Your task to perform on an android device: turn on translation in the chrome app Image 0: 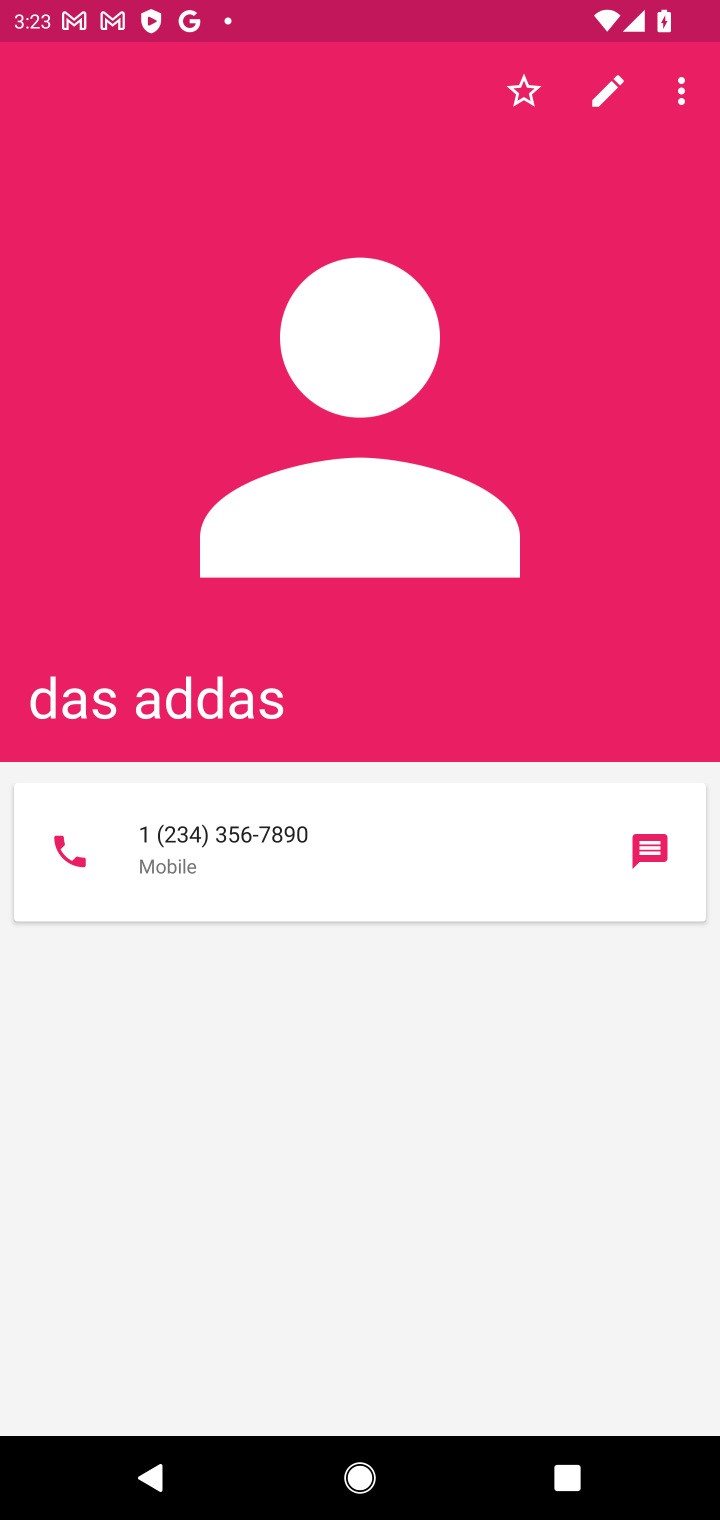
Step 0: press home button
Your task to perform on an android device: turn on translation in the chrome app Image 1: 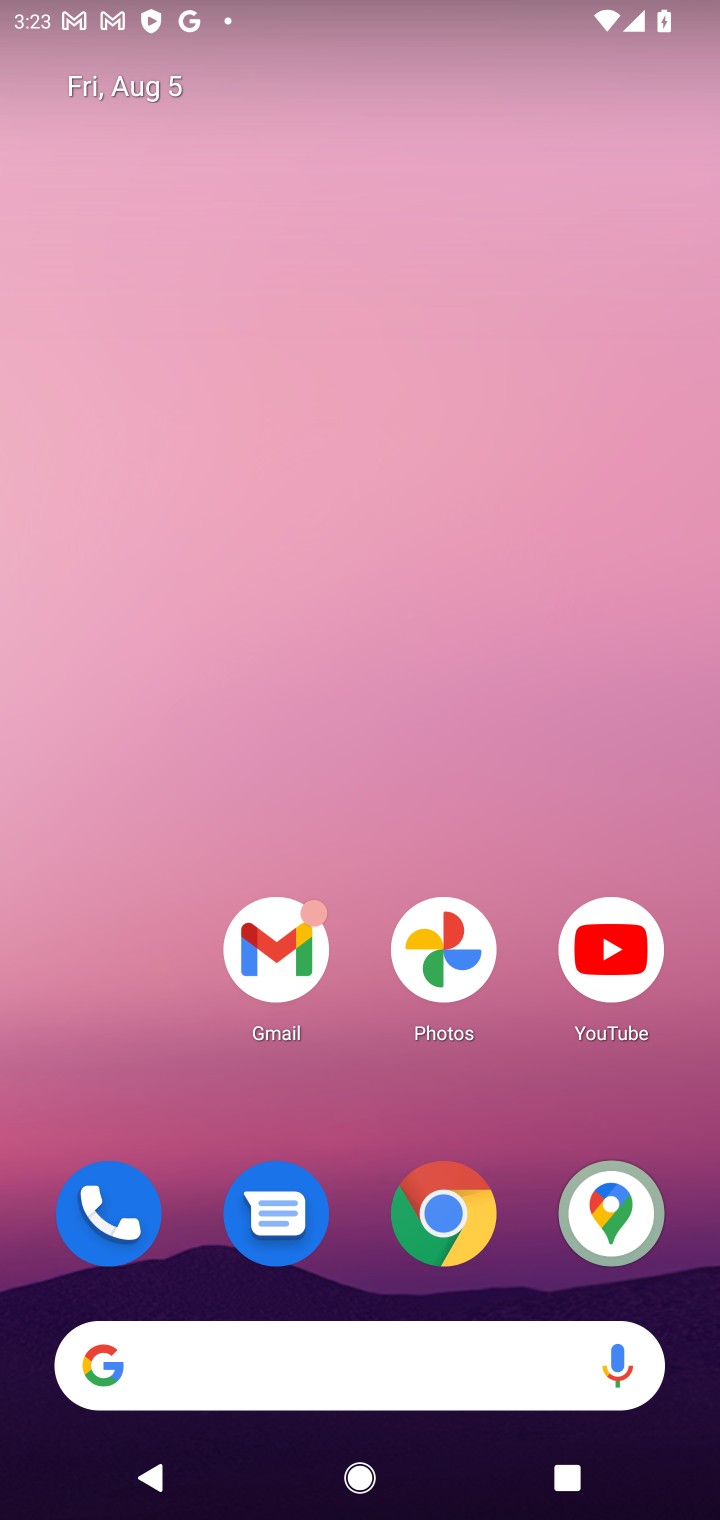
Step 1: click (465, 1225)
Your task to perform on an android device: turn on translation in the chrome app Image 2: 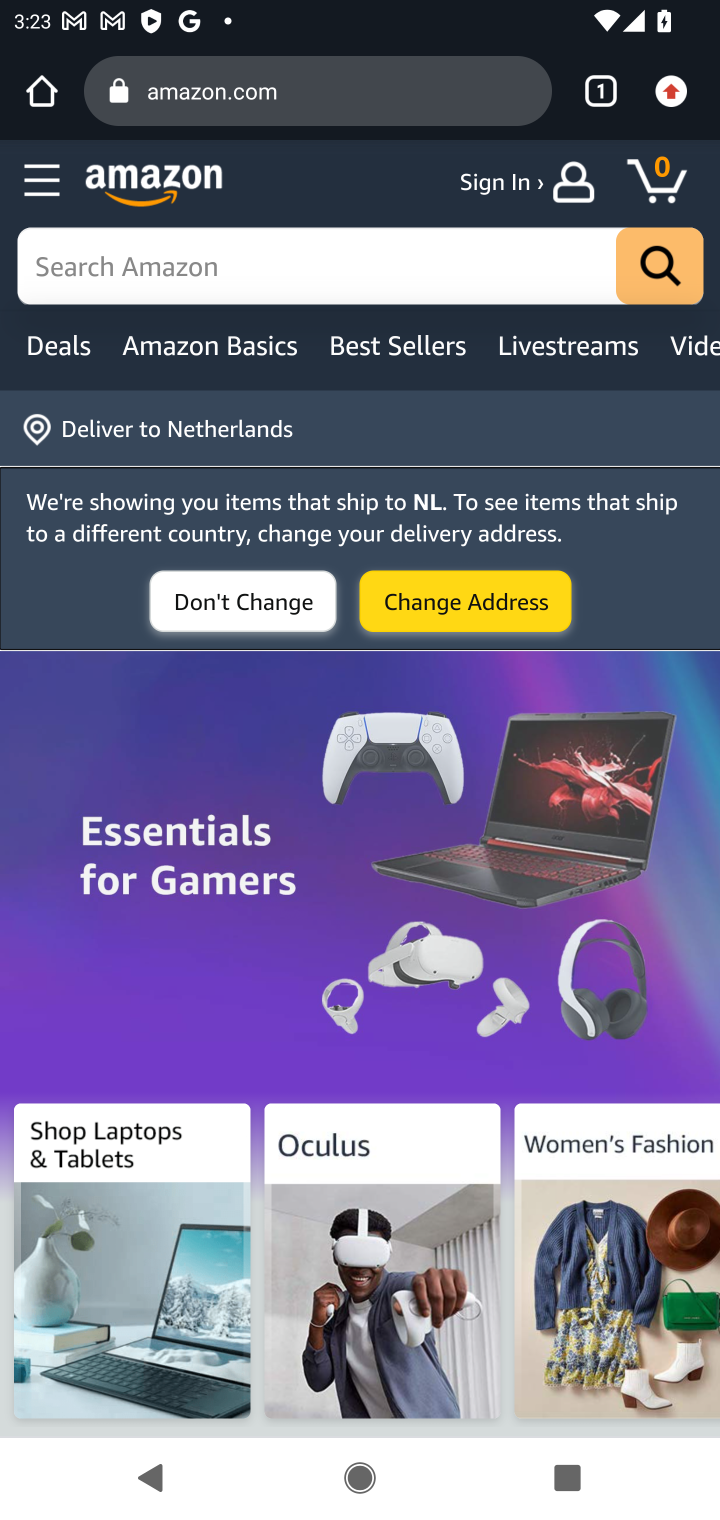
Step 2: click (671, 116)
Your task to perform on an android device: turn on translation in the chrome app Image 3: 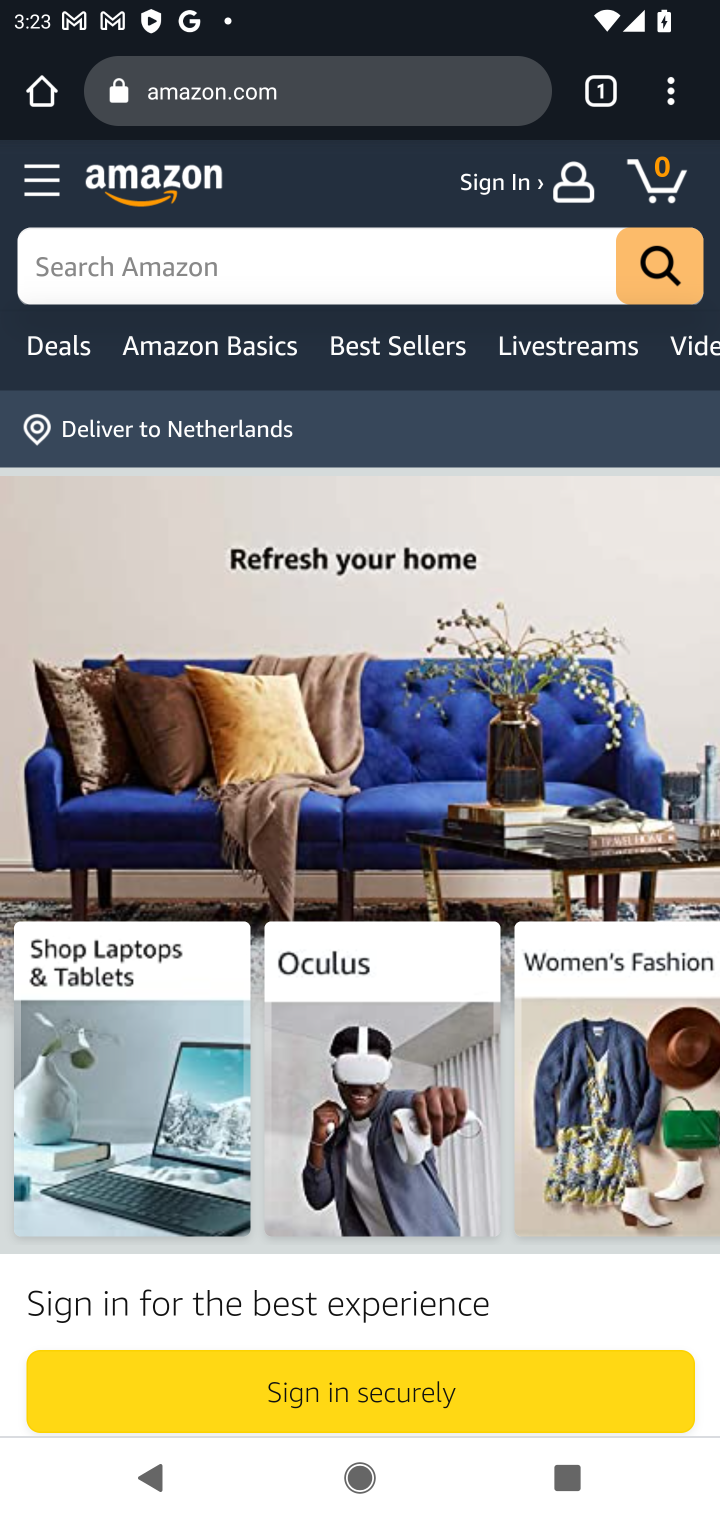
Step 3: click (674, 88)
Your task to perform on an android device: turn on translation in the chrome app Image 4: 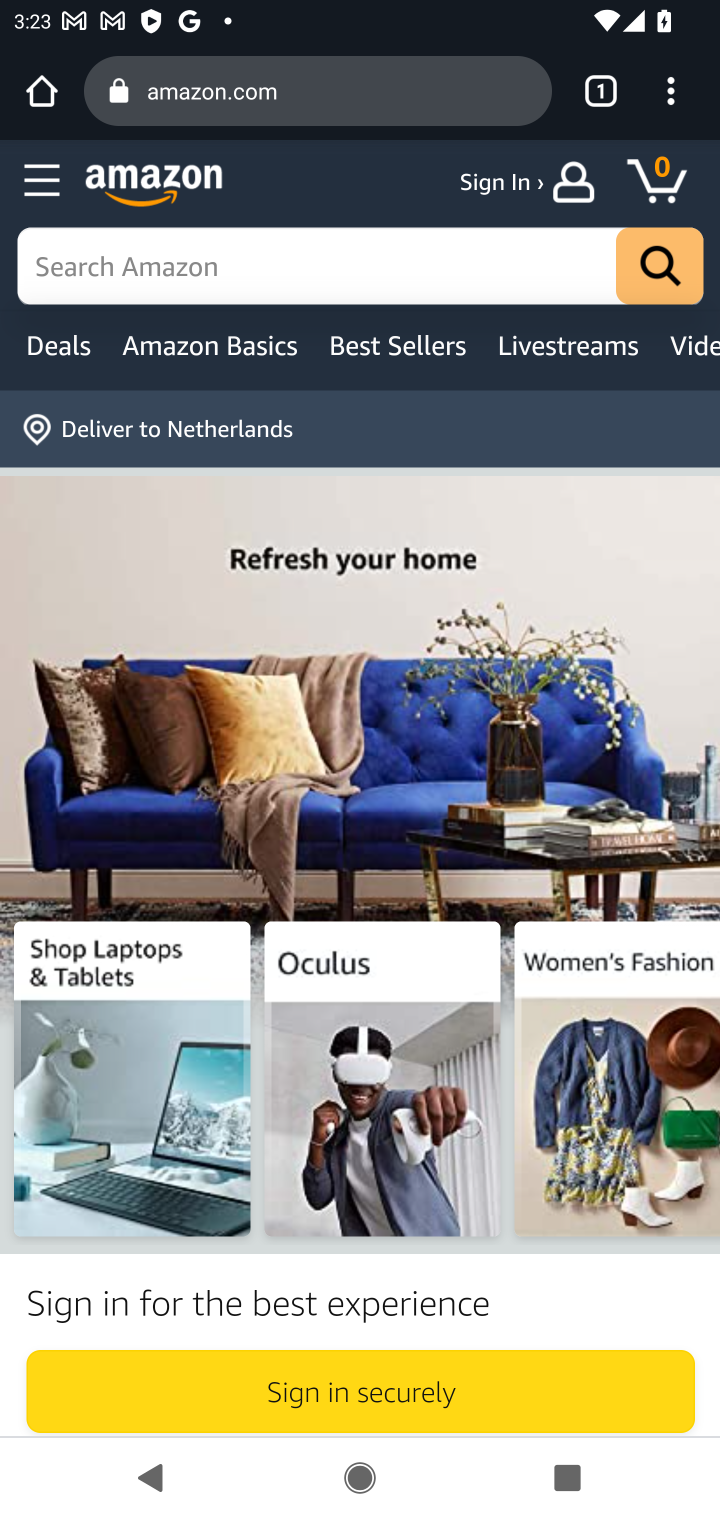
Step 4: click (648, 90)
Your task to perform on an android device: turn on translation in the chrome app Image 5: 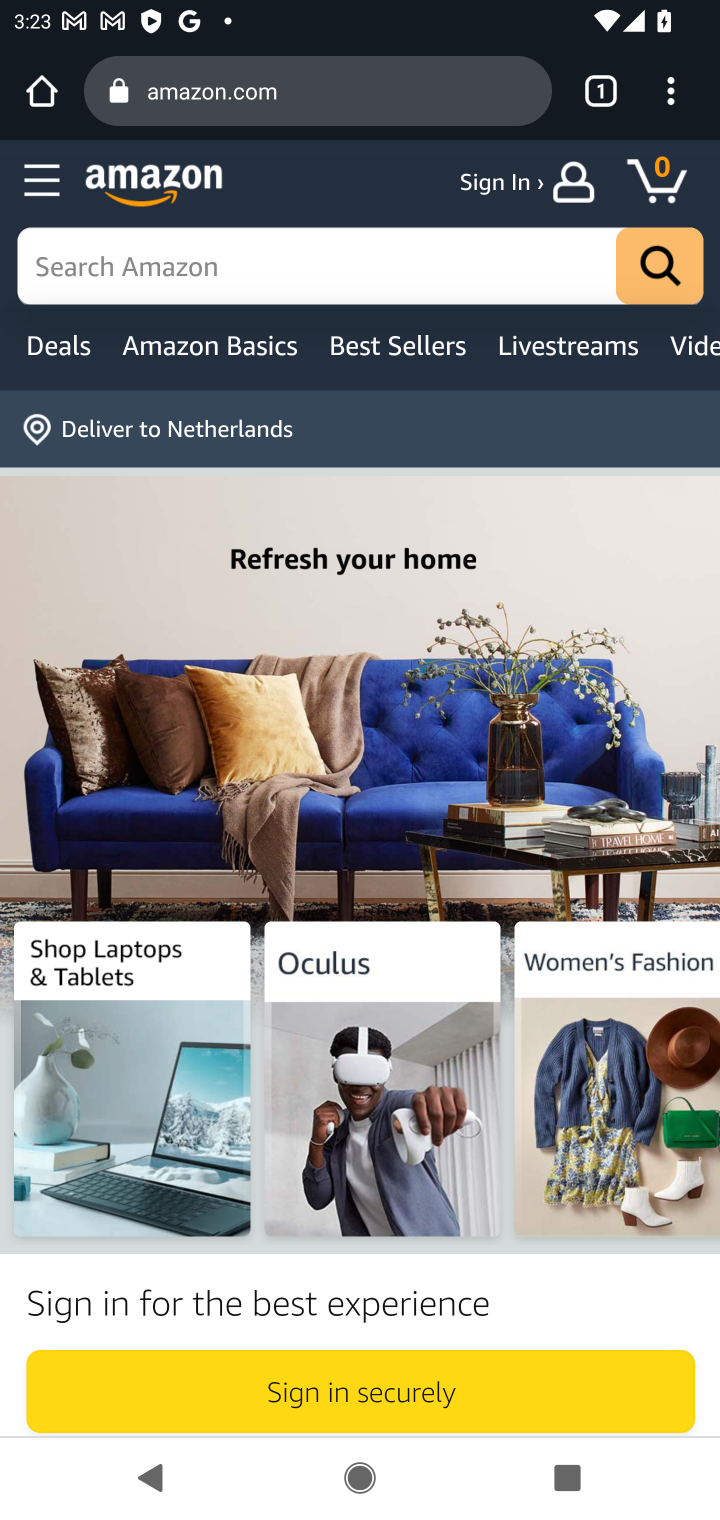
Step 5: task complete